Your task to perform on an android device: change the clock display to digital Image 0: 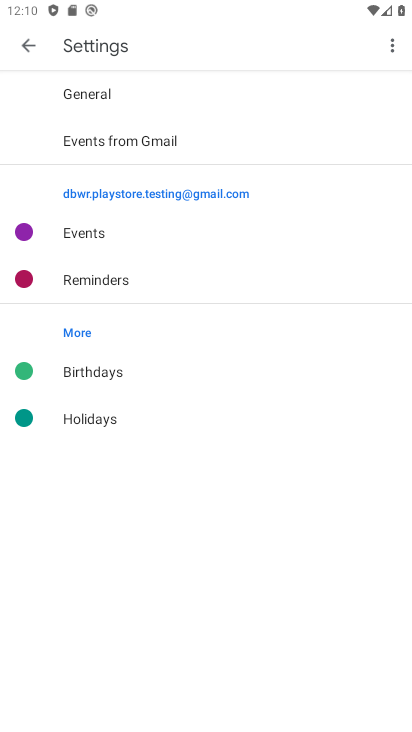
Step 0: press home button
Your task to perform on an android device: change the clock display to digital Image 1: 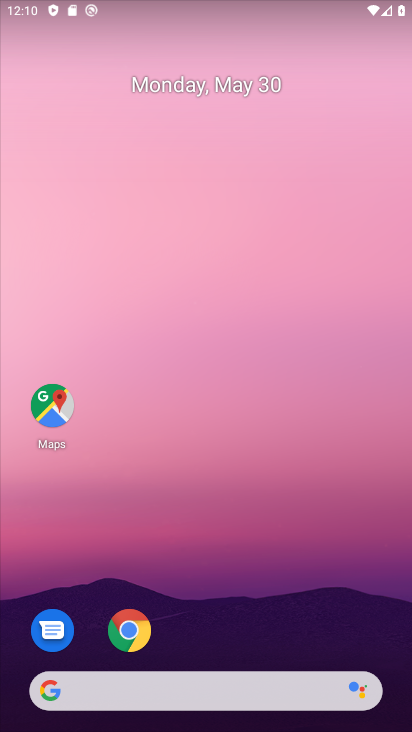
Step 1: drag from (123, 720) to (122, 40)
Your task to perform on an android device: change the clock display to digital Image 2: 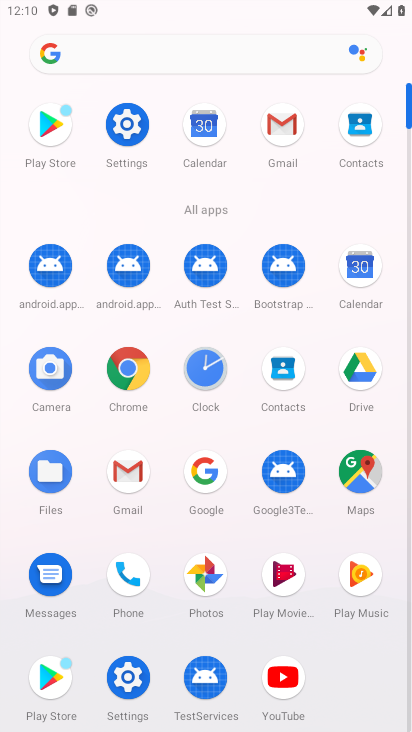
Step 2: click (208, 385)
Your task to perform on an android device: change the clock display to digital Image 3: 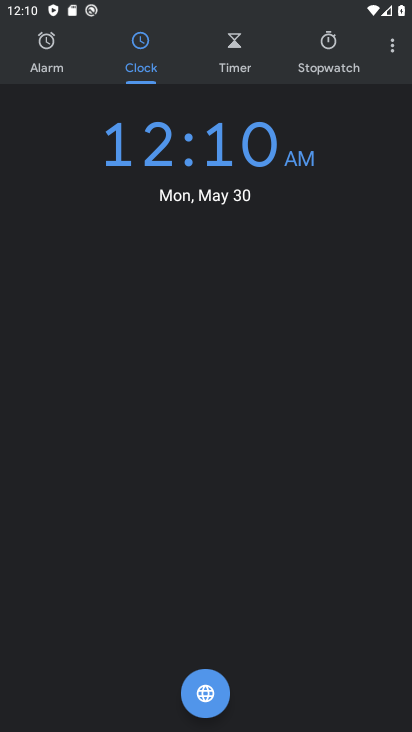
Step 3: click (396, 42)
Your task to perform on an android device: change the clock display to digital Image 4: 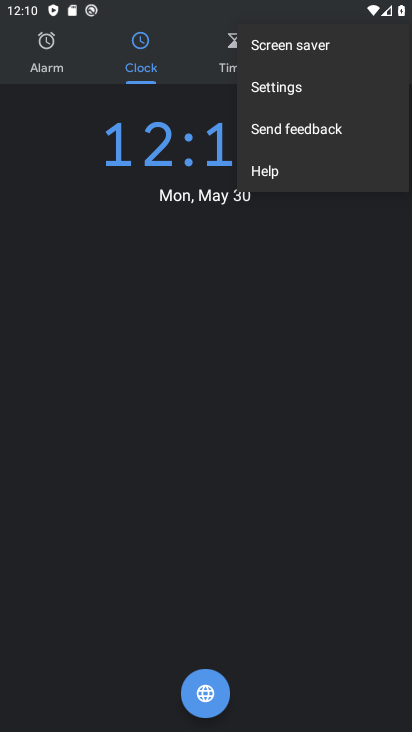
Step 4: click (290, 101)
Your task to perform on an android device: change the clock display to digital Image 5: 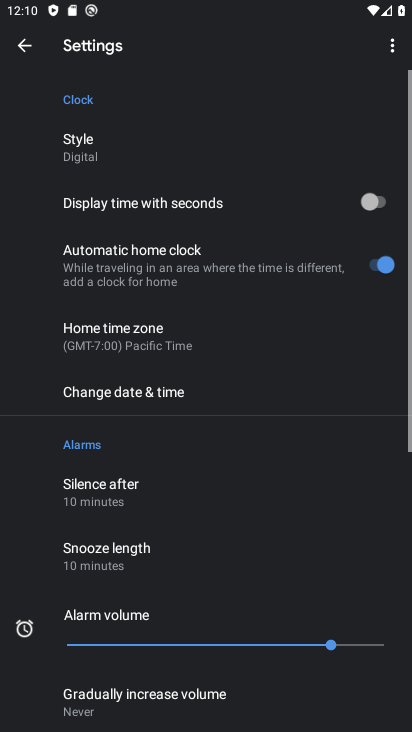
Step 5: click (84, 162)
Your task to perform on an android device: change the clock display to digital Image 6: 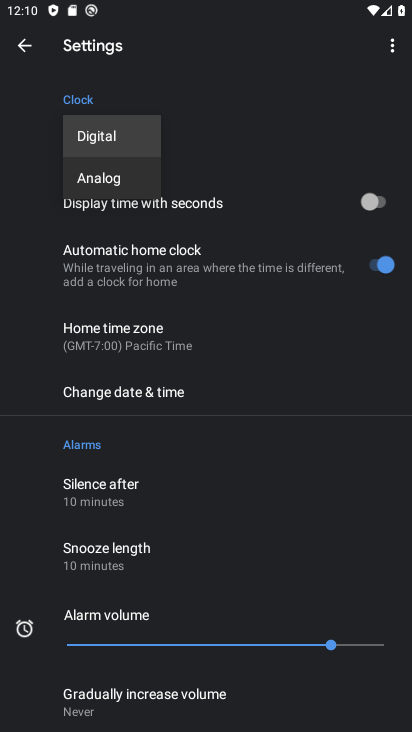
Step 6: task complete